Your task to perform on an android device: turn notification dots off Image 0: 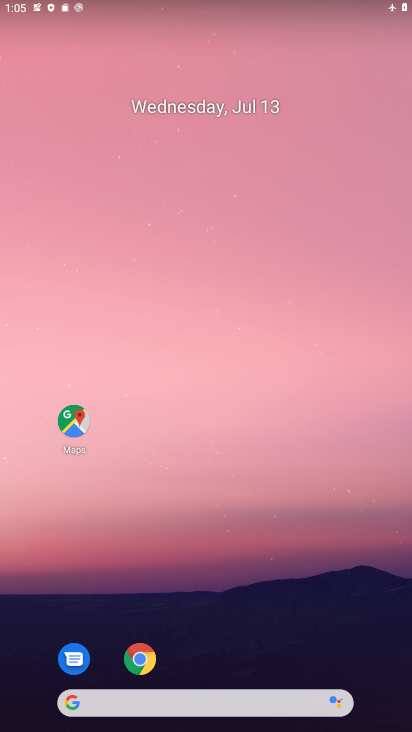
Step 0: drag from (217, 635) to (211, 98)
Your task to perform on an android device: turn notification dots off Image 1: 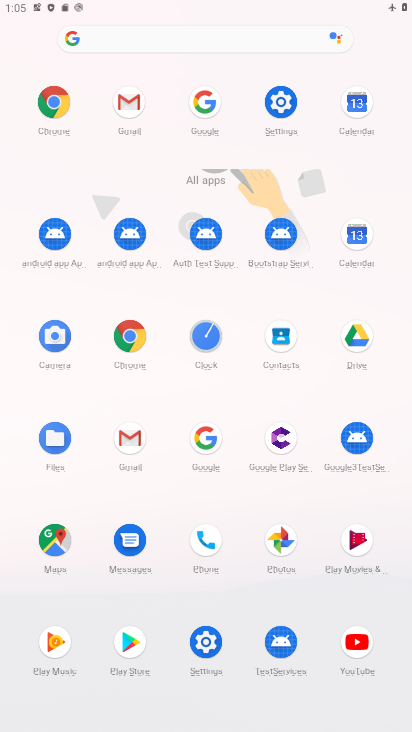
Step 1: click (279, 97)
Your task to perform on an android device: turn notification dots off Image 2: 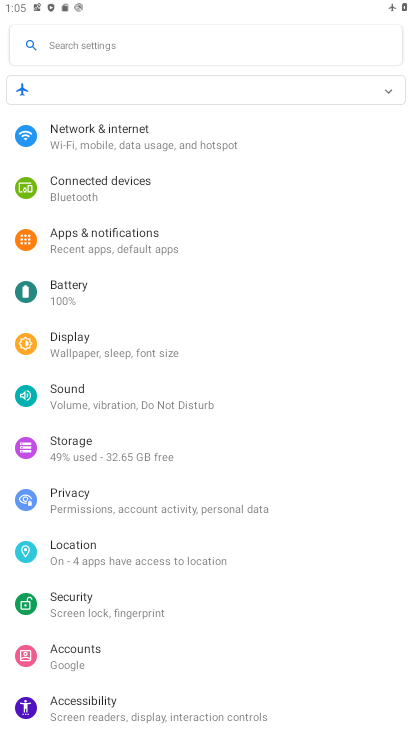
Step 2: click (107, 238)
Your task to perform on an android device: turn notification dots off Image 3: 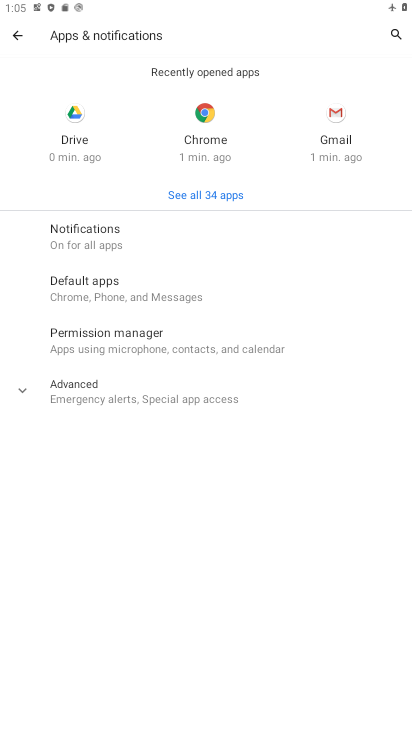
Step 3: click (104, 233)
Your task to perform on an android device: turn notification dots off Image 4: 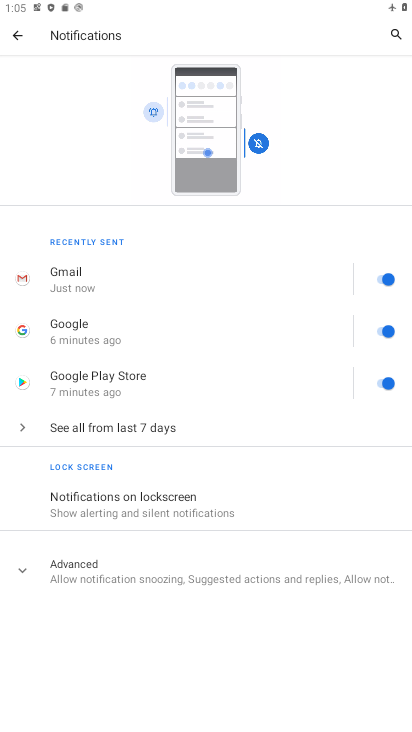
Step 4: click (71, 565)
Your task to perform on an android device: turn notification dots off Image 5: 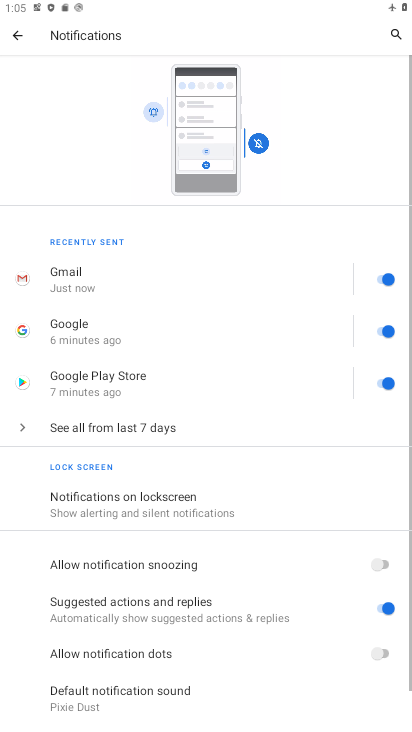
Step 5: task complete